Your task to perform on an android device: read, delete, or share a saved page in the chrome app Image 0: 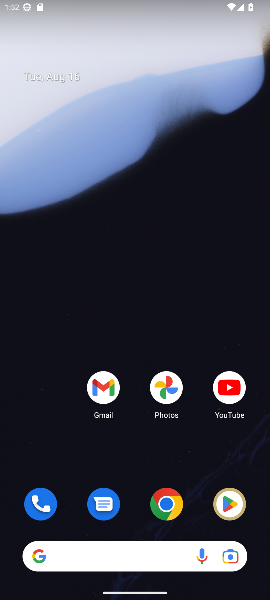
Step 0: click (171, 499)
Your task to perform on an android device: read, delete, or share a saved page in the chrome app Image 1: 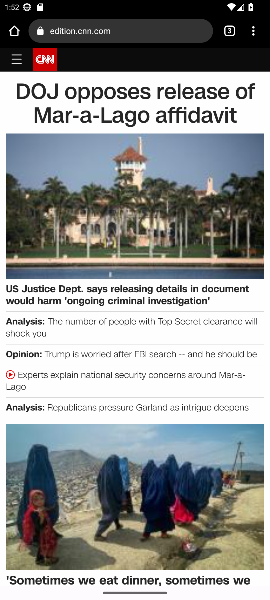
Step 1: click (251, 26)
Your task to perform on an android device: read, delete, or share a saved page in the chrome app Image 2: 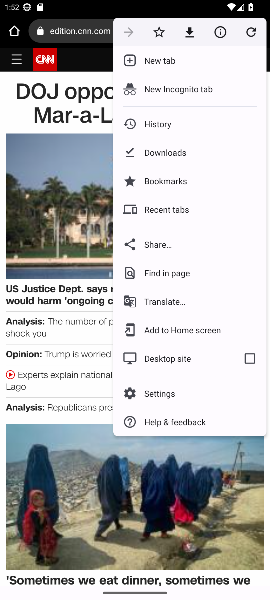
Step 2: click (164, 148)
Your task to perform on an android device: read, delete, or share a saved page in the chrome app Image 3: 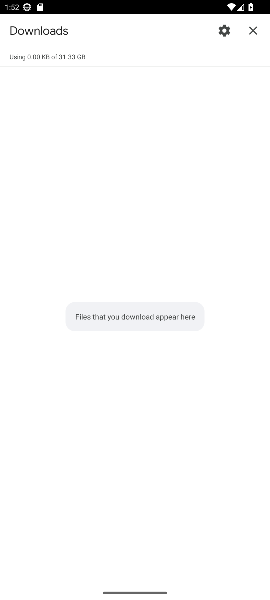
Step 3: task complete